Your task to perform on an android device: Open Amazon Image 0: 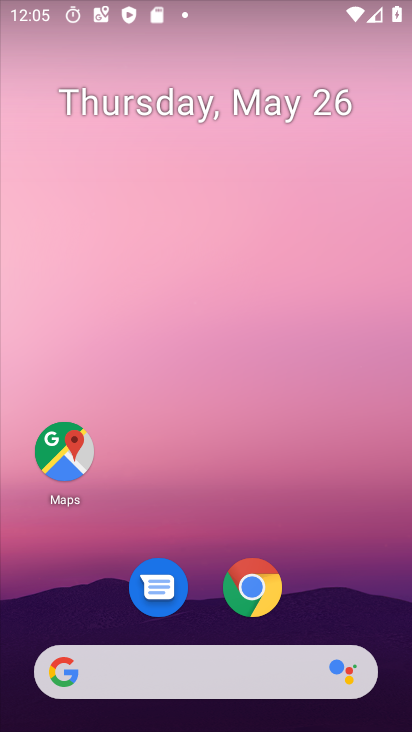
Step 0: drag from (235, 695) to (138, 86)
Your task to perform on an android device: Open Amazon Image 1: 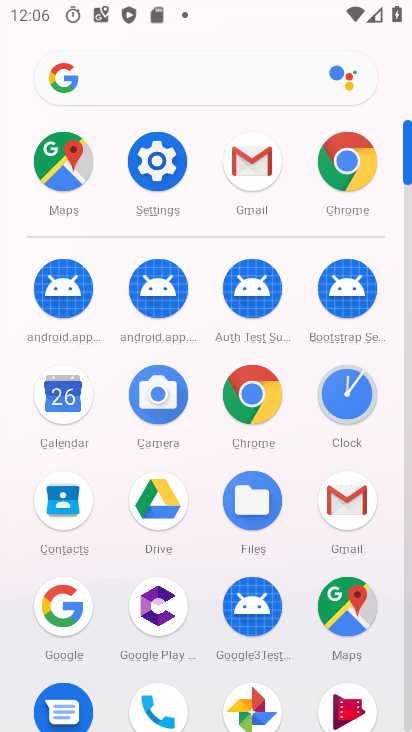
Step 1: click (327, 164)
Your task to perform on an android device: Open Amazon Image 2: 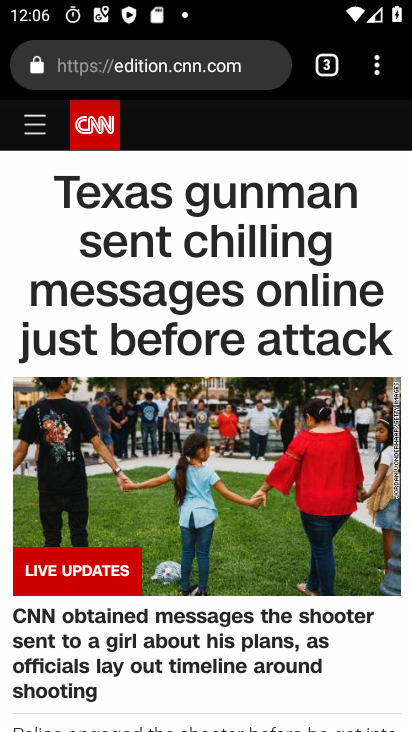
Step 2: click (331, 80)
Your task to perform on an android device: Open Amazon Image 3: 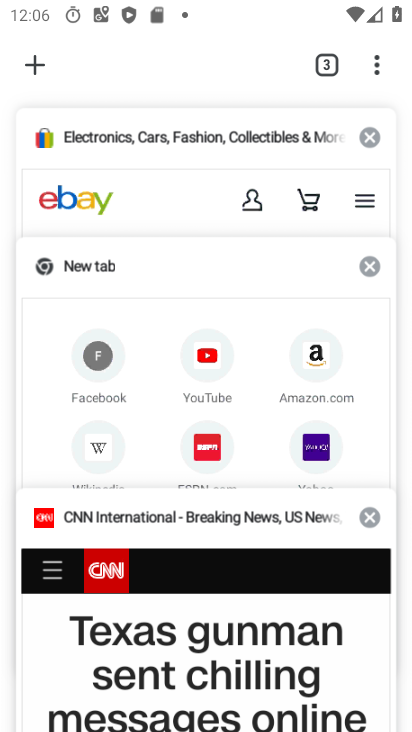
Step 3: click (52, 57)
Your task to perform on an android device: Open Amazon Image 4: 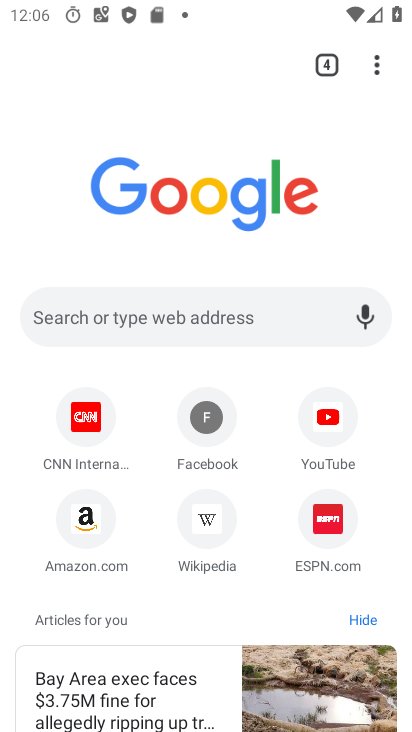
Step 4: click (95, 517)
Your task to perform on an android device: Open Amazon Image 5: 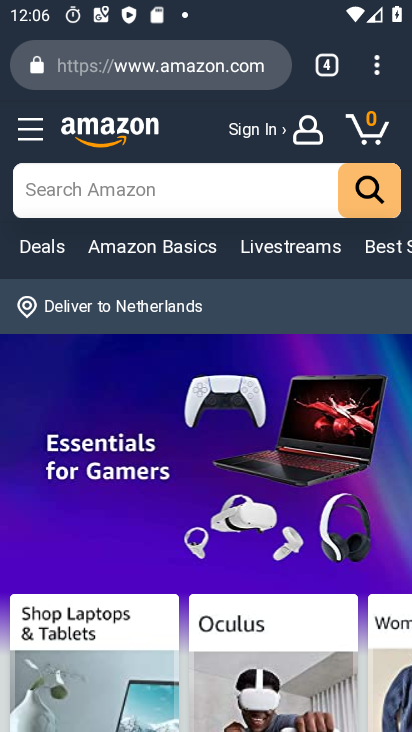
Step 5: task complete